Your task to perform on an android device: Open Google Maps and go to "Timeline" Image 0: 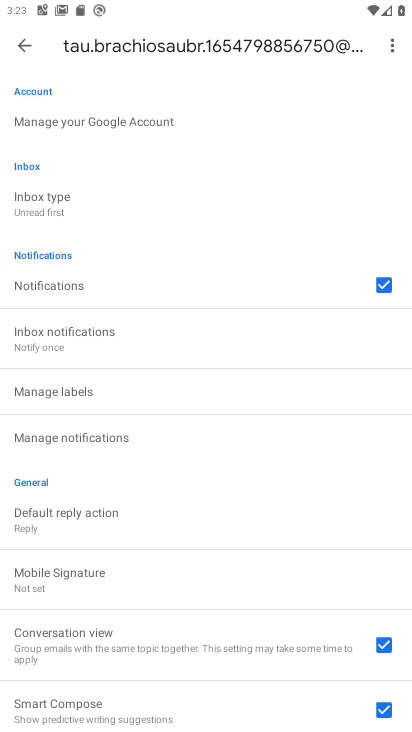
Step 0: press home button
Your task to perform on an android device: Open Google Maps and go to "Timeline" Image 1: 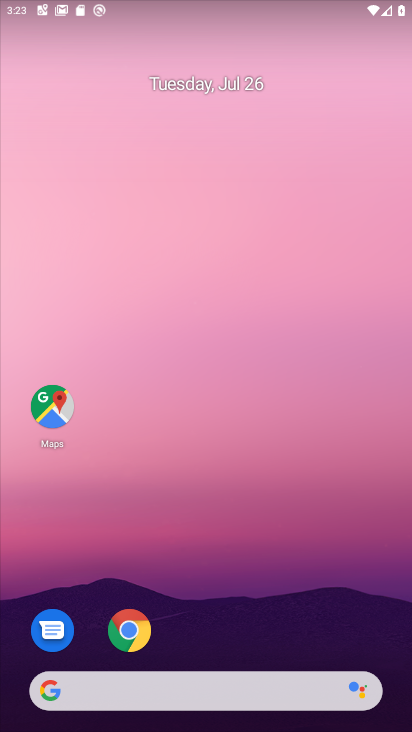
Step 1: click (78, 400)
Your task to perform on an android device: Open Google Maps and go to "Timeline" Image 2: 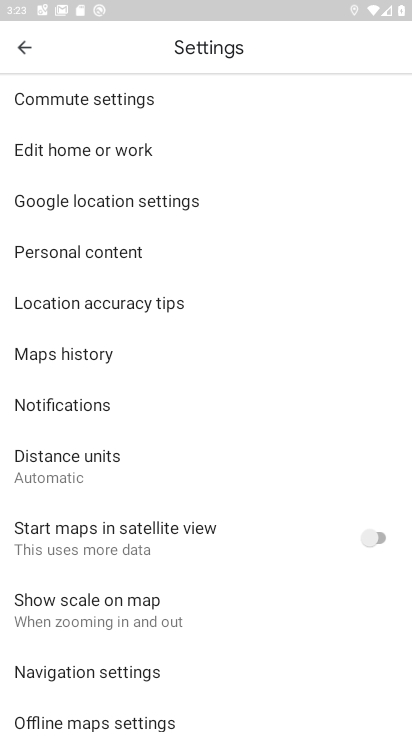
Step 2: click (28, 47)
Your task to perform on an android device: Open Google Maps and go to "Timeline" Image 3: 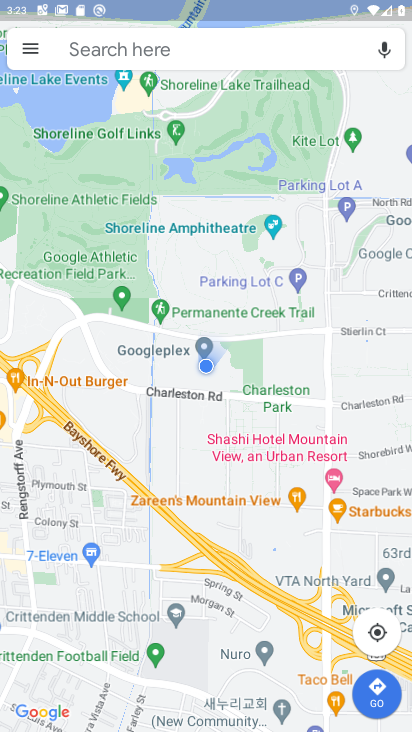
Step 3: click (28, 47)
Your task to perform on an android device: Open Google Maps and go to "Timeline" Image 4: 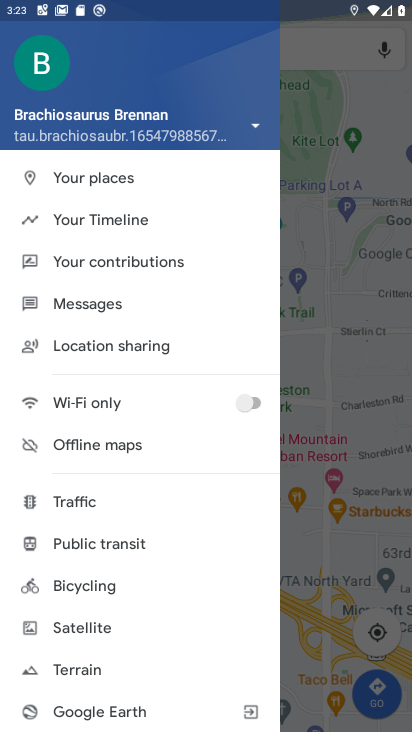
Step 4: click (72, 220)
Your task to perform on an android device: Open Google Maps and go to "Timeline" Image 5: 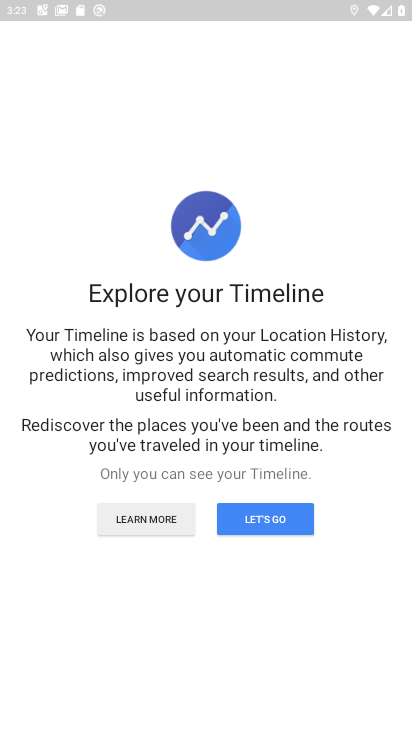
Step 5: click (299, 515)
Your task to perform on an android device: Open Google Maps and go to "Timeline" Image 6: 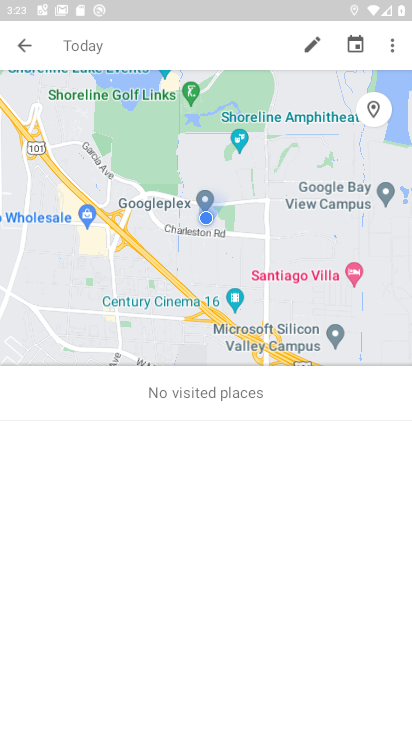
Step 6: task complete